Your task to perform on an android device: What's the weather? Image 0: 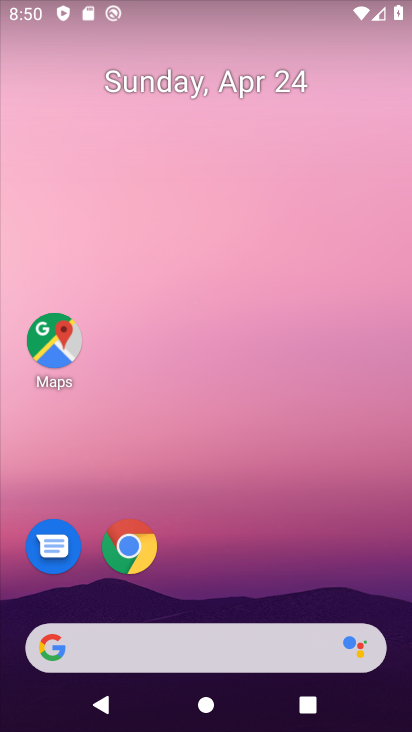
Step 0: drag from (285, 569) to (288, 236)
Your task to perform on an android device: What's the weather? Image 1: 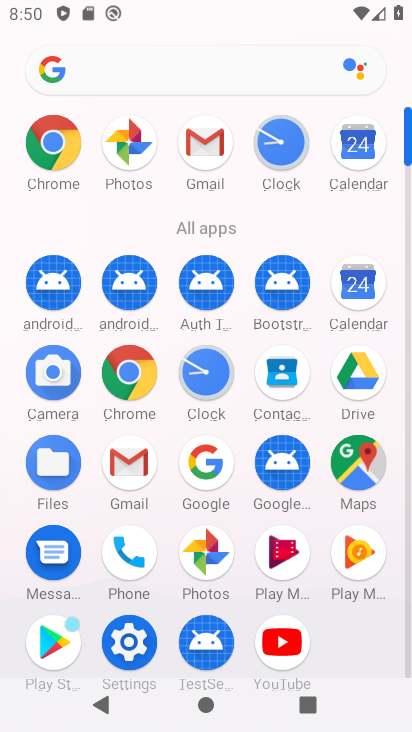
Step 1: click (130, 371)
Your task to perform on an android device: What's the weather? Image 2: 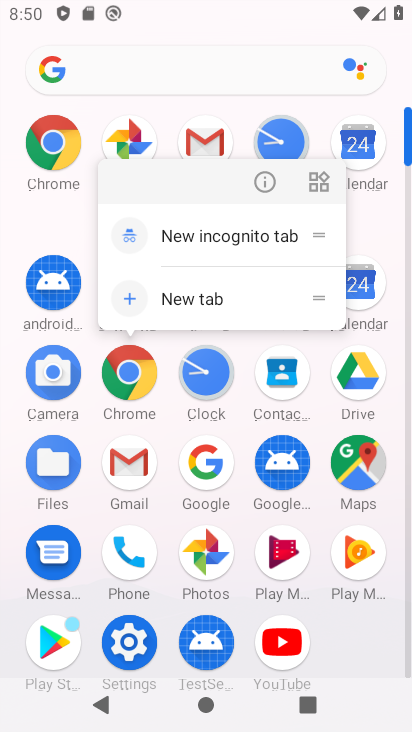
Step 2: click (129, 372)
Your task to perform on an android device: What's the weather? Image 3: 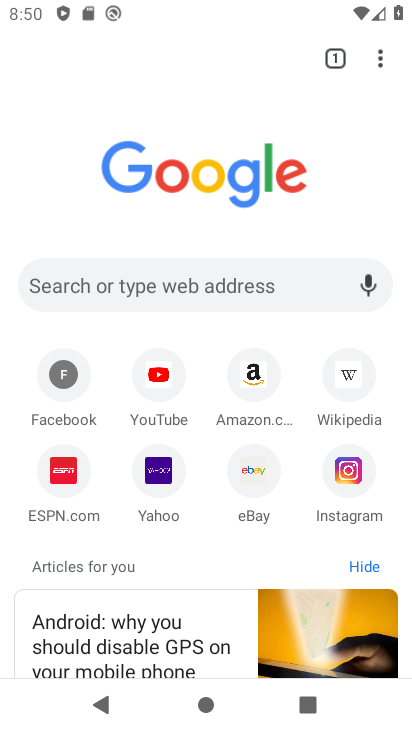
Step 3: click (135, 273)
Your task to perform on an android device: What's the weather? Image 4: 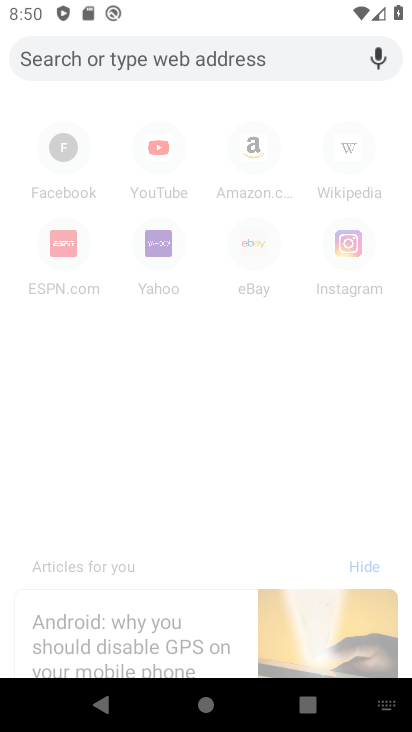
Step 4: type "What's the weather?"
Your task to perform on an android device: What's the weather? Image 5: 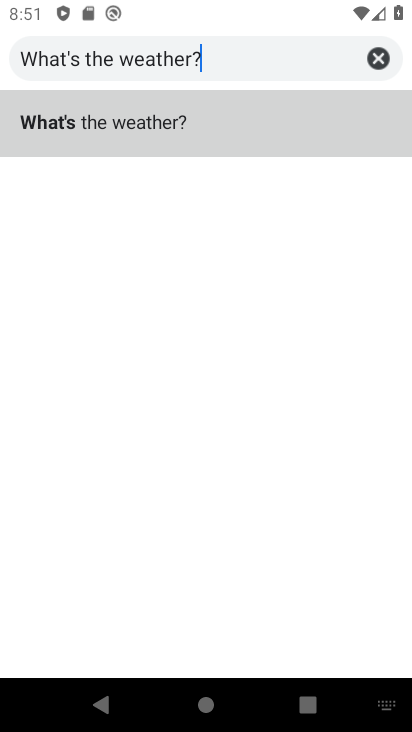
Step 5: click (238, 115)
Your task to perform on an android device: What's the weather? Image 6: 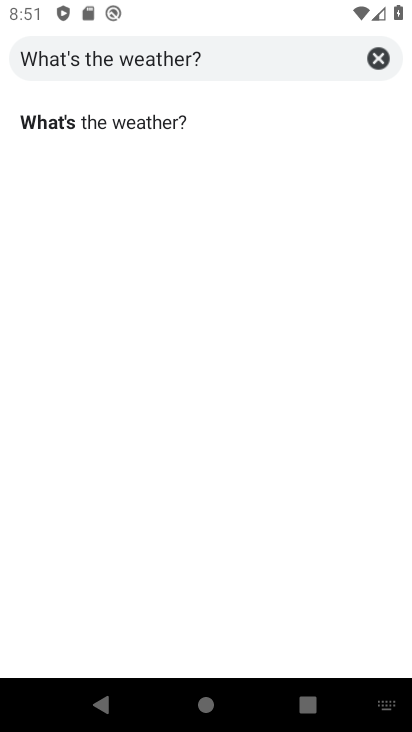
Step 6: click (202, 127)
Your task to perform on an android device: What's the weather? Image 7: 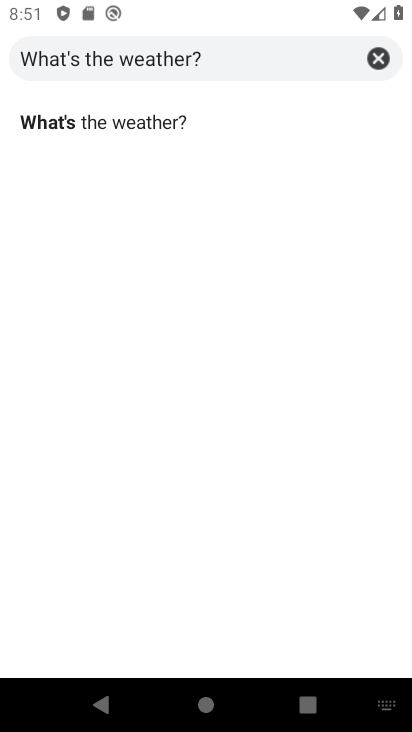
Step 7: click (163, 117)
Your task to perform on an android device: What's the weather? Image 8: 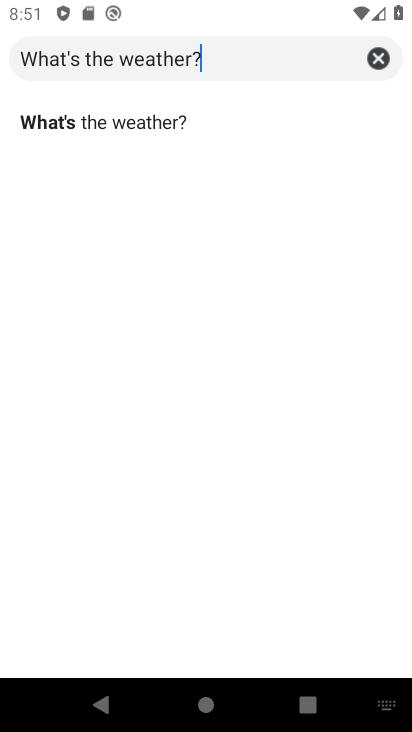
Step 8: click (138, 120)
Your task to perform on an android device: What's the weather? Image 9: 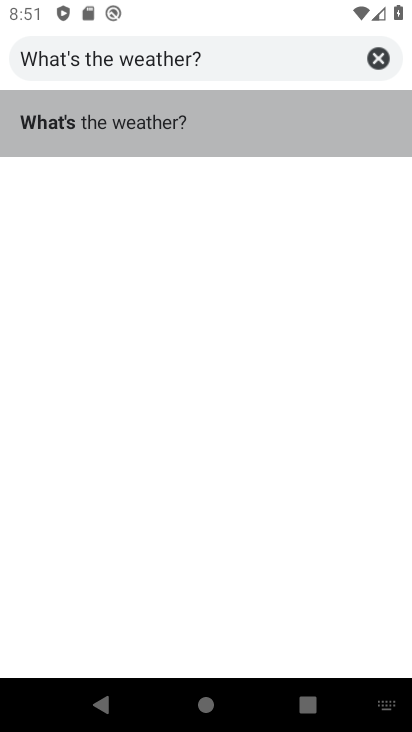
Step 9: click (124, 120)
Your task to perform on an android device: What's the weather? Image 10: 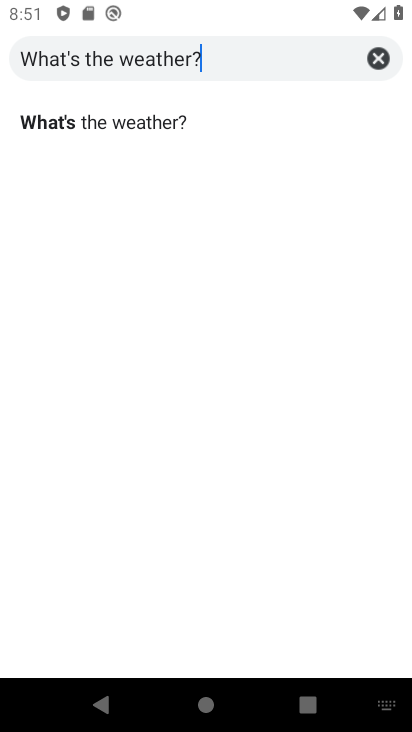
Step 10: click (124, 121)
Your task to perform on an android device: What's the weather? Image 11: 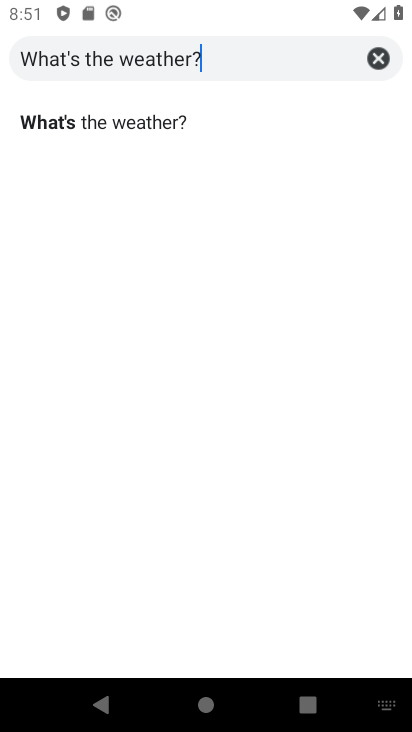
Step 11: click (215, 47)
Your task to perform on an android device: What's the weather? Image 12: 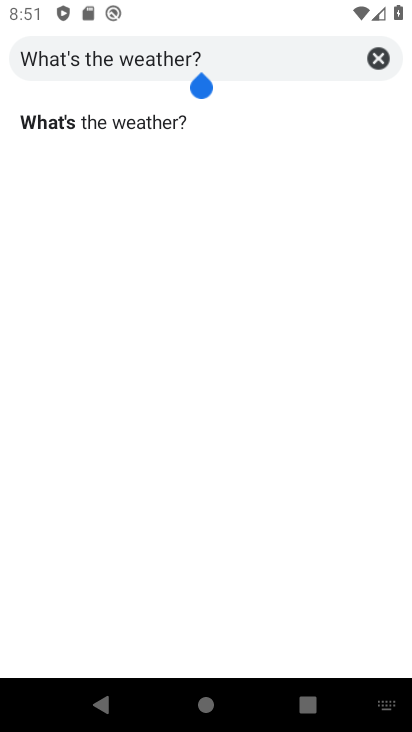
Step 12: click (377, 61)
Your task to perform on an android device: What's the weather? Image 13: 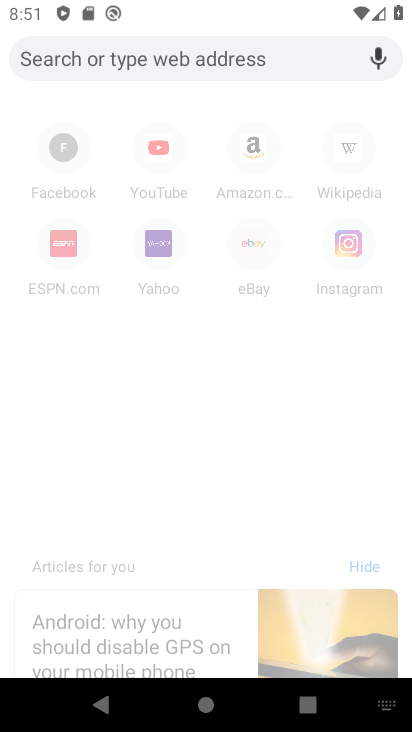
Step 13: click (256, 44)
Your task to perform on an android device: What's the weather? Image 14: 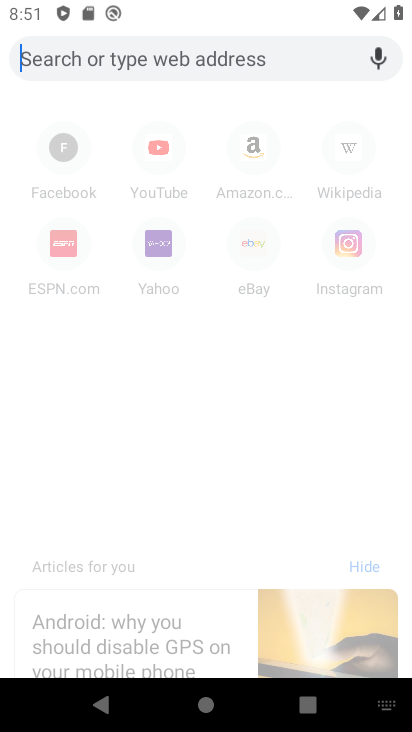
Step 14: type "What's the weather"
Your task to perform on an android device: What's the weather? Image 15: 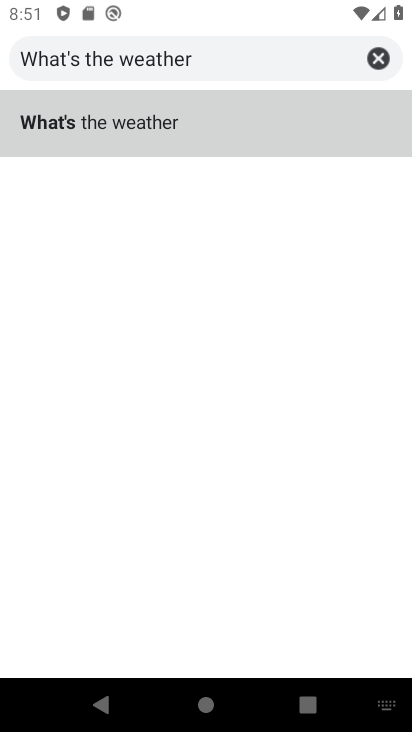
Step 15: click (187, 124)
Your task to perform on an android device: What's the weather? Image 16: 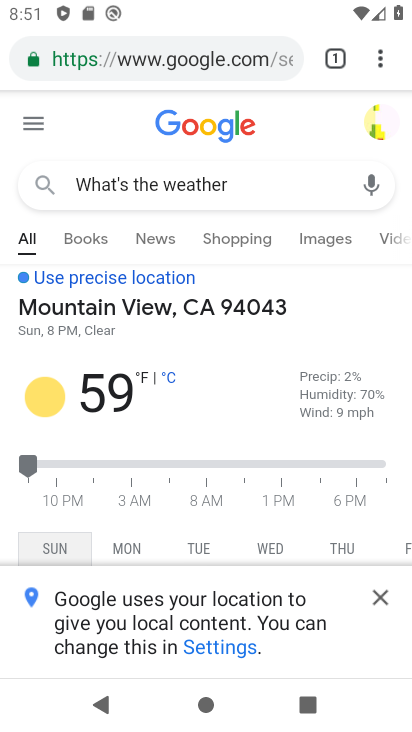
Step 16: task complete